Your task to perform on an android device: Go to sound settings Image 0: 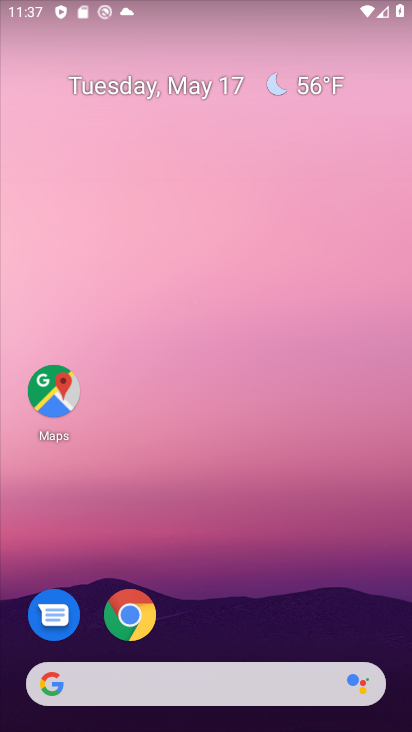
Step 0: drag from (233, 626) to (219, 1)
Your task to perform on an android device: Go to sound settings Image 1: 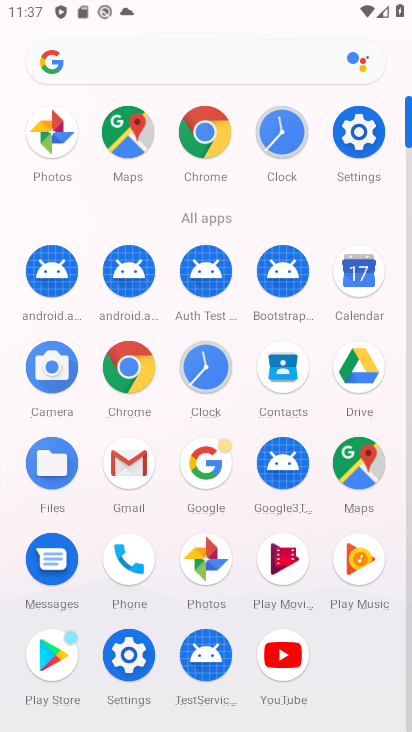
Step 1: click (347, 135)
Your task to perform on an android device: Go to sound settings Image 2: 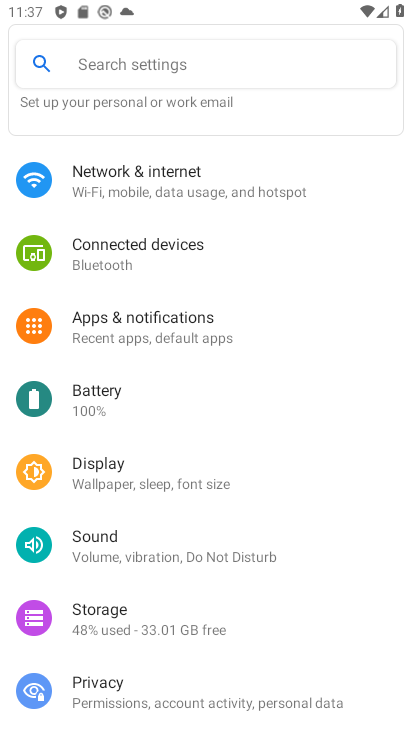
Step 2: click (127, 498)
Your task to perform on an android device: Go to sound settings Image 3: 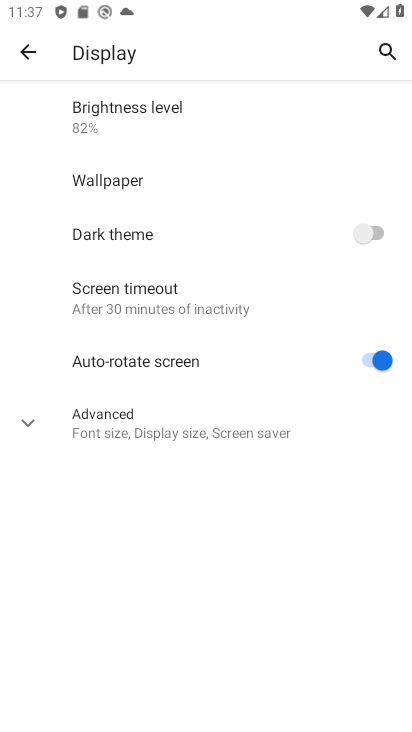
Step 3: click (35, 37)
Your task to perform on an android device: Go to sound settings Image 4: 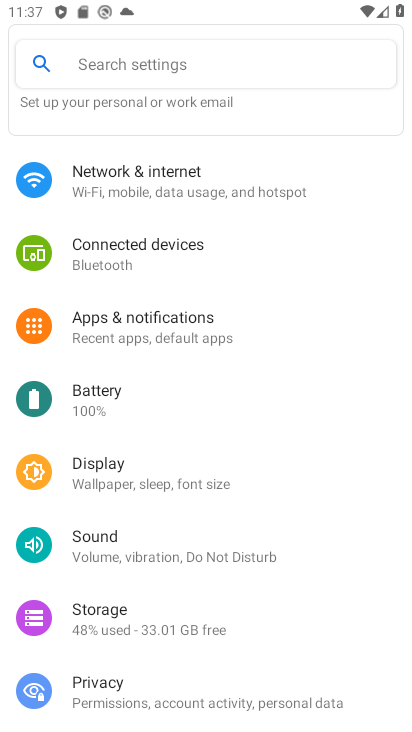
Step 4: click (109, 563)
Your task to perform on an android device: Go to sound settings Image 5: 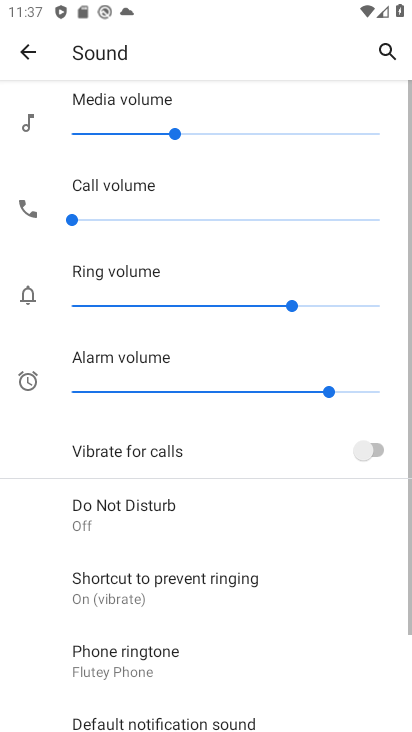
Step 5: task complete